Your task to perform on an android device: check battery use Image 0: 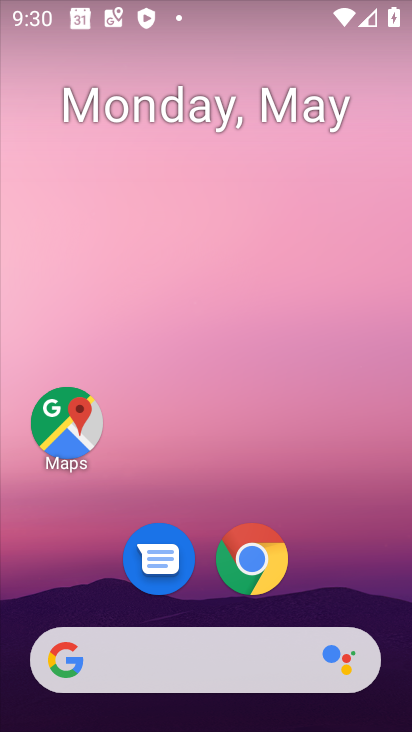
Step 0: click (251, 562)
Your task to perform on an android device: check battery use Image 1: 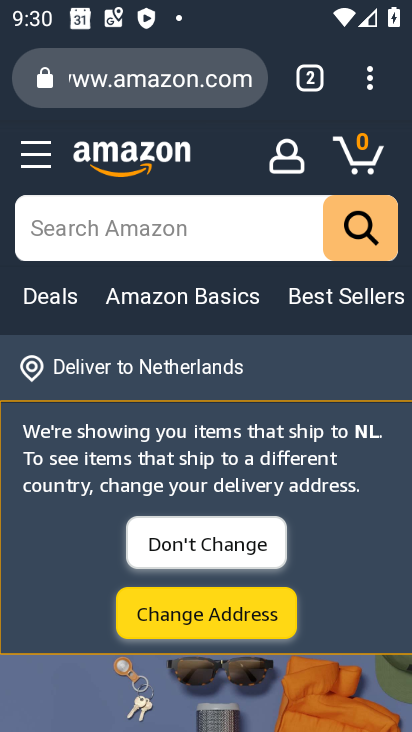
Step 1: press home button
Your task to perform on an android device: check battery use Image 2: 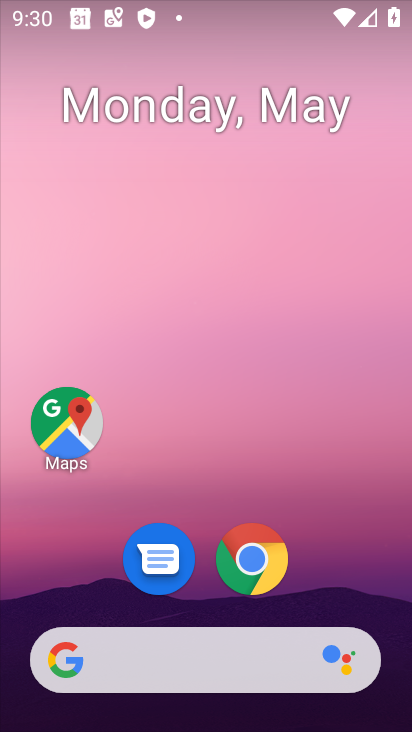
Step 2: drag from (332, 569) to (229, 163)
Your task to perform on an android device: check battery use Image 3: 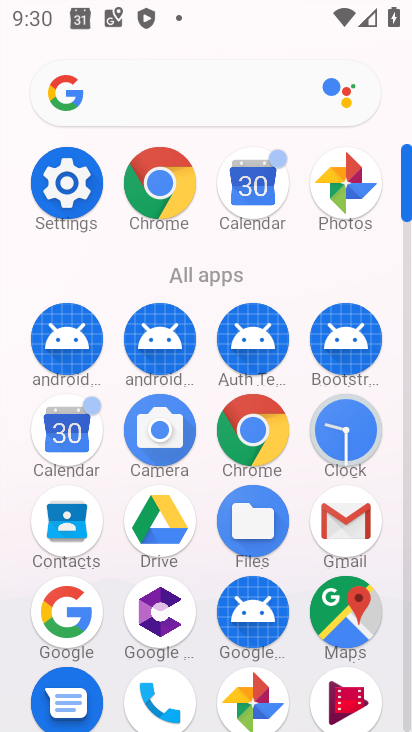
Step 3: click (67, 191)
Your task to perform on an android device: check battery use Image 4: 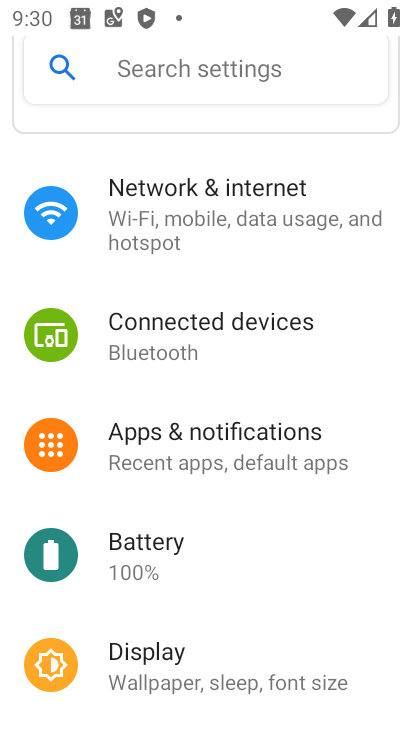
Step 4: click (144, 518)
Your task to perform on an android device: check battery use Image 5: 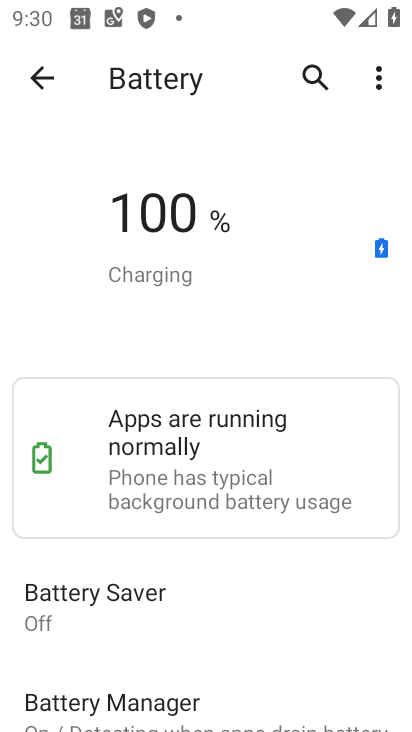
Step 5: task complete